Your task to perform on an android device: Play the last video I watched on Youtube Image 0: 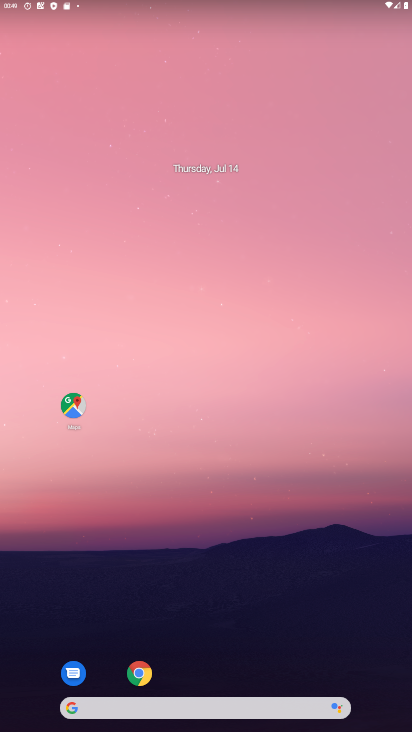
Step 0: drag from (233, 673) to (246, 157)
Your task to perform on an android device: Play the last video I watched on Youtube Image 1: 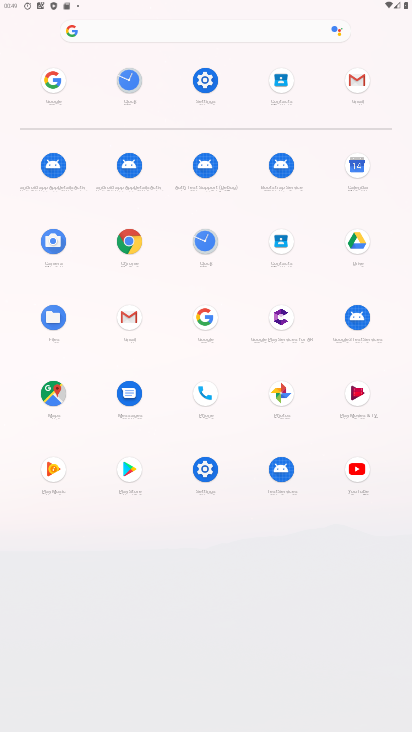
Step 1: click (366, 483)
Your task to perform on an android device: Play the last video I watched on Youtube Image 2: 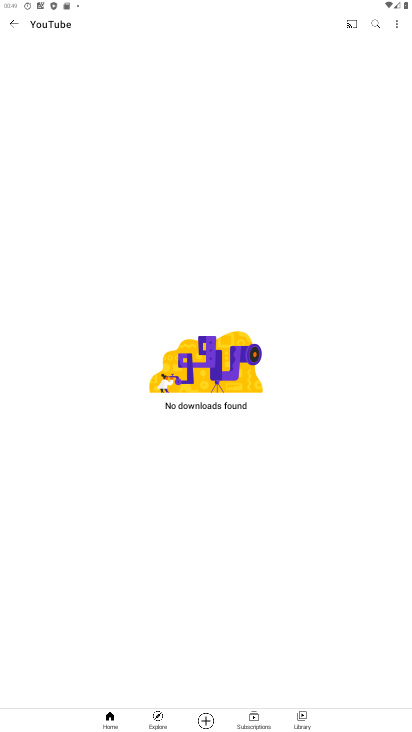
Step 2: click (303, 715)
Your task to perform on an android device: Play the last video I watched on Youtube Image 3: 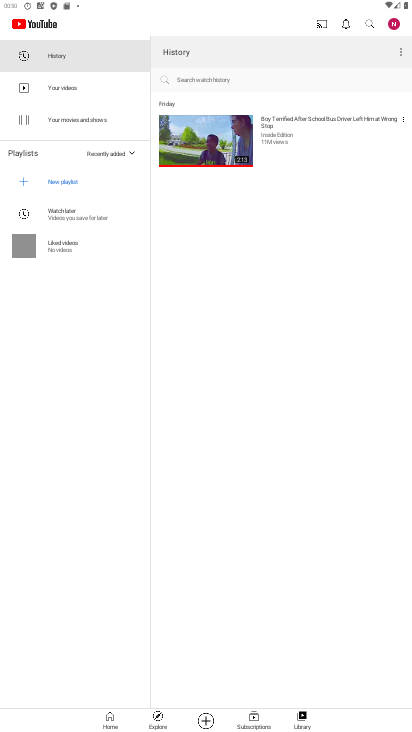
Step 3: click (210, 138)
Your task to perform on an android device: Play the last video I watched on Youtube Image 4: 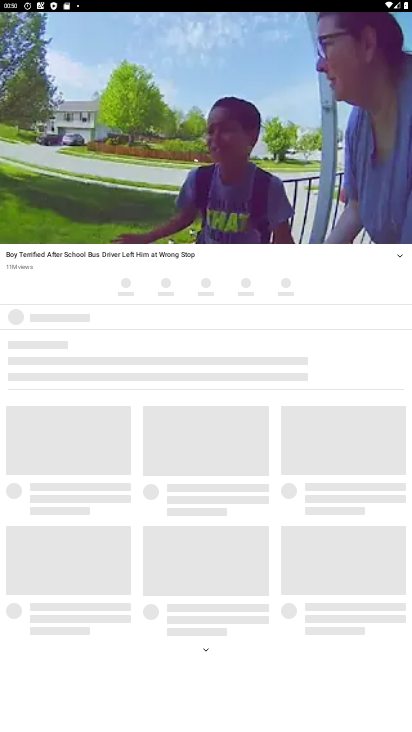
Step 4: click (202, 140)
Your task to perform on an android device: Play the last video I watched on Youtube Image 5: 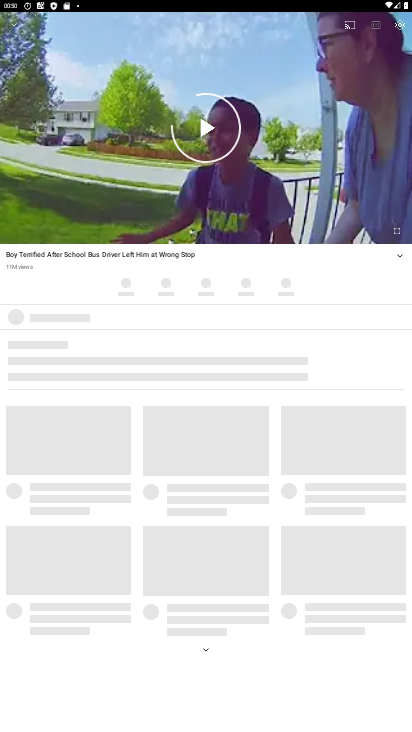
Step 5: click (202, 140)
Your task to perform on an android device: Play the last video I watched on Youtube Image 6: 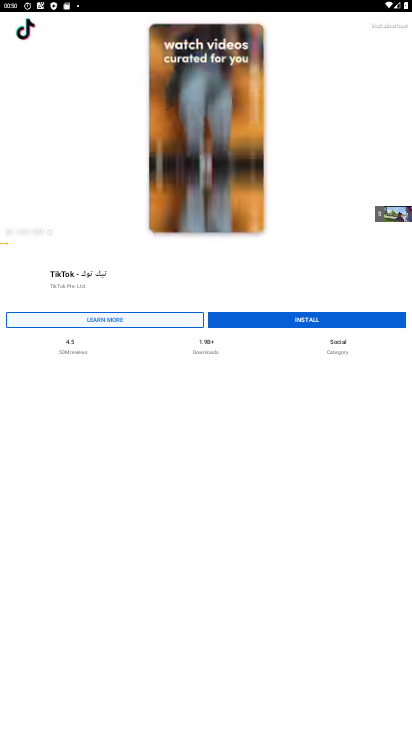
Step 6: click (201, 138)
Your task to perform on an android device: Play the last video I watched on Youtube Image 7: 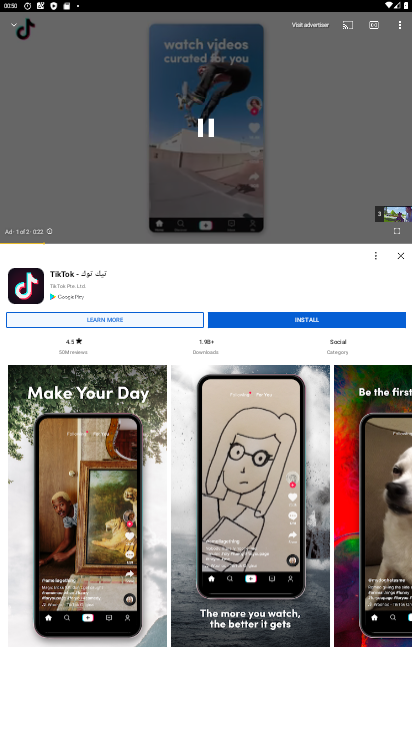
Step 7: click (201, 138)
Your task to perform on an android device: Play the last video I watched on Youtube Image 8: 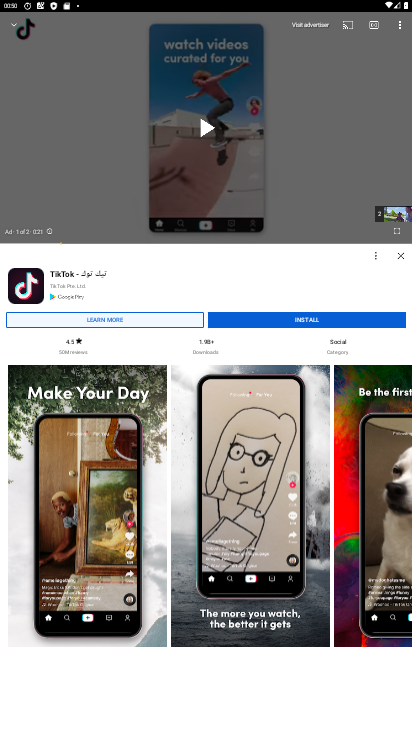
Step 8: task complete